Your task to perform on an android device: Open Google Chrome and click the shortcut for Amazon.com Image 0: 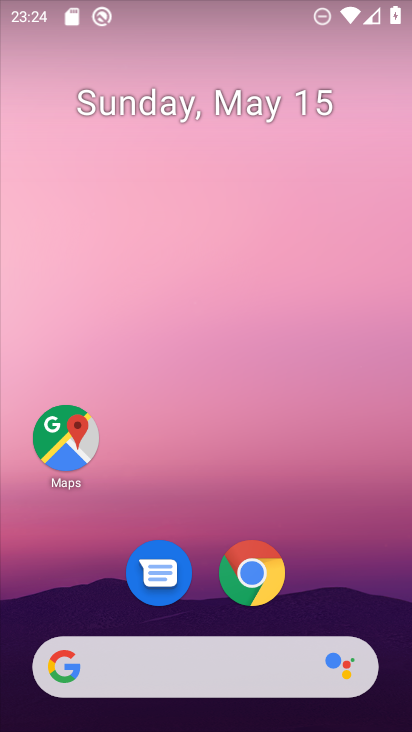
Step 0: click (257, 583)
Your task to perform on an android device: Open Google Chrome and click the shortcut for Amazon.com Image 1: 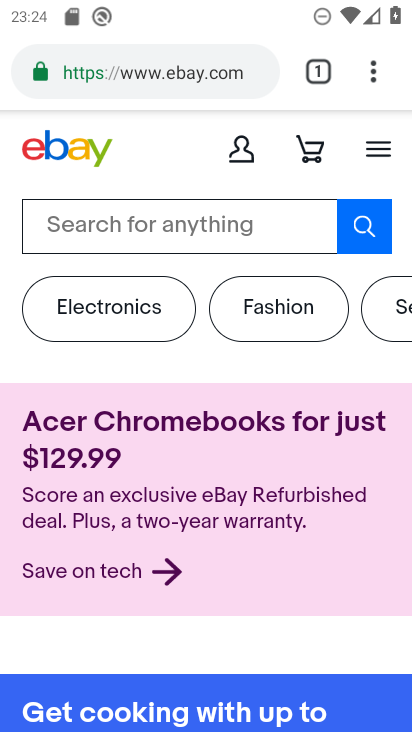
Step 1: click (170, 87)
Your task to perform on an android device: Open Google Chrome and click the shortcut for Amazon.com Image 2: 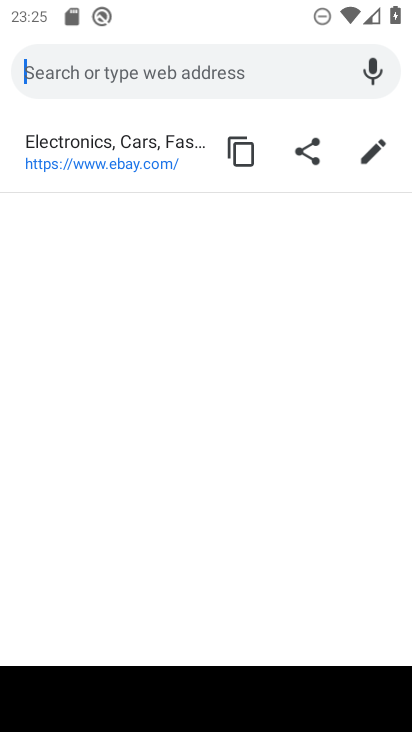
Step 2: type " Amazon.com"
Your task to perform on an android device: Open Google Chrome and click the shortcut for Amazon.com Image 3: 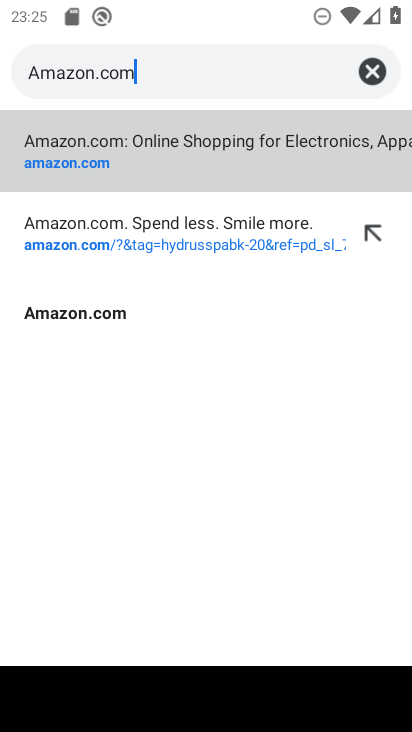
Step 3: click (124, 159)
Your task to perform on an android device: Open Google Chrome and click the shortcut for Amazon.com Image 4: 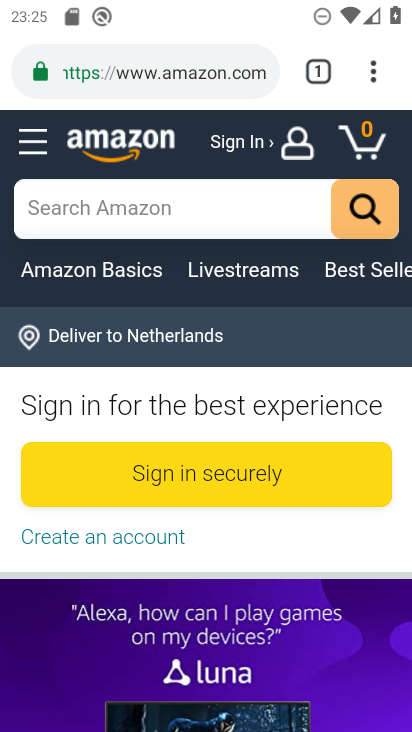
Step 4: task complete